Your task to perform on an android device: turn notification dots off Image 0: 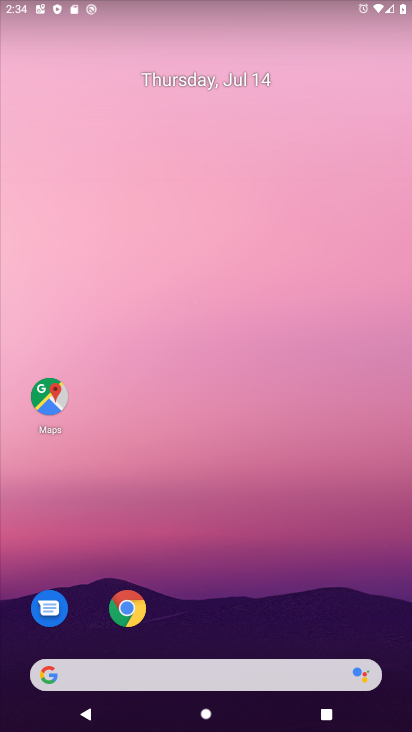
Step 0: drag from (242, 676) to (242, 179)
Your task to perform on an android device: turn notification dots off Image 1: 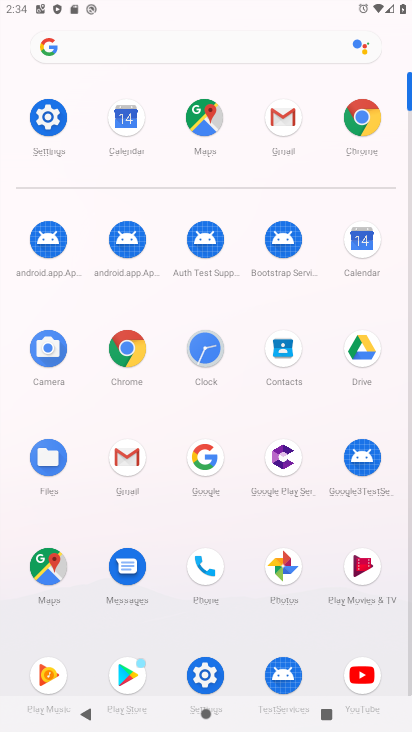
Step 1: click (37, 118)
Your task to perform on an android device: turn notification dots off Image 2: 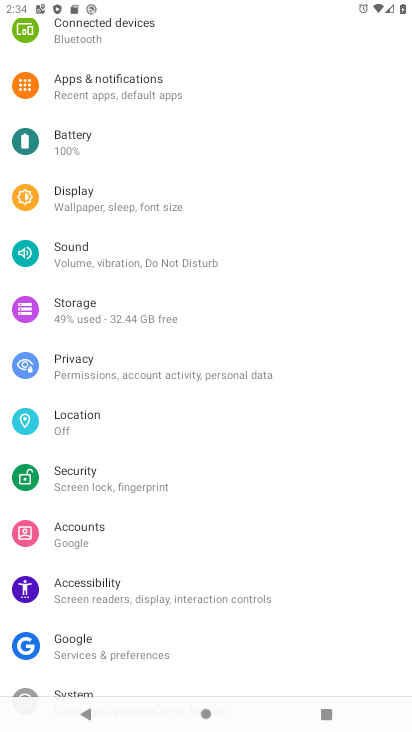
Step 2: click (101, 100)
Your task to perform on an android device: turn notification dots off Image 3: 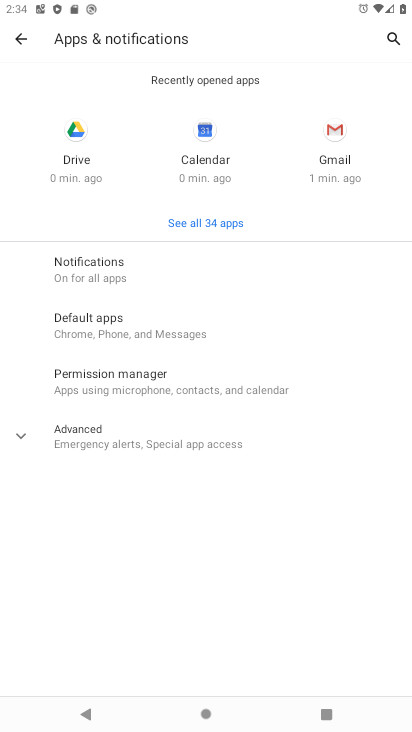
Step 3: click (92, 266)
Your task to perform on an android device: turn notification dots off Image 4: 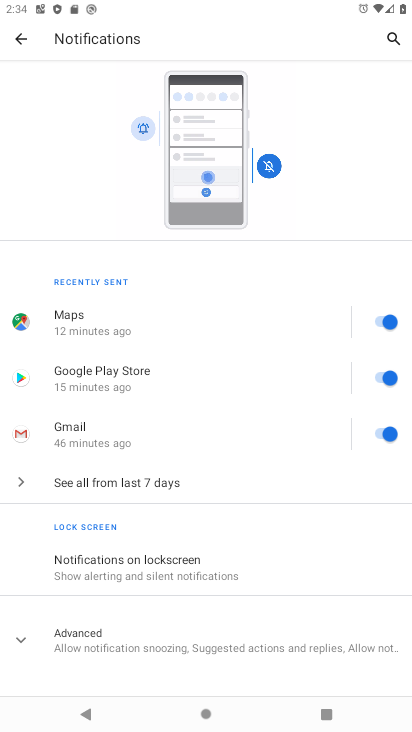
Step 4: drag from (196, 645) to (196, 330)
Your task to perform on an android device: turn notification dots off Image 5: 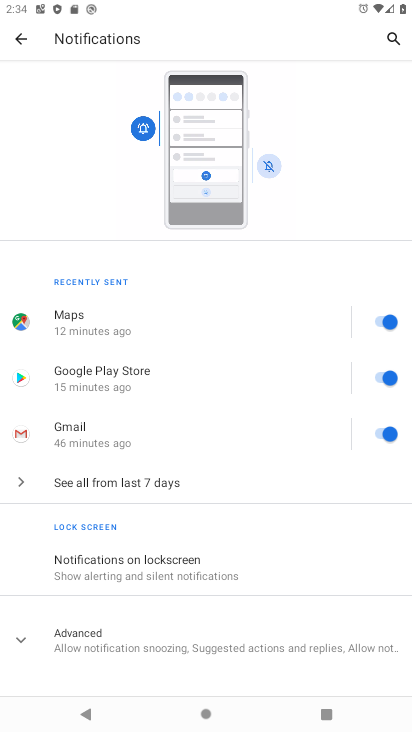
Step 5: click (172, 638)
Your task to perform on an android device: turn notification dots off Image 6: 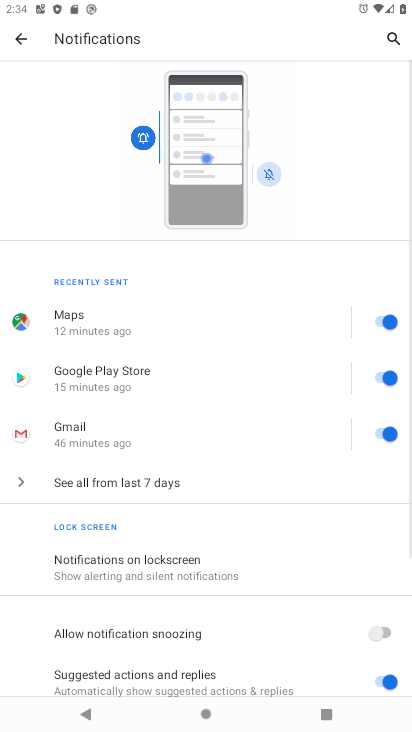
Step 6: drag from (267, 656) to (244, 379)
Your task to perform on an android device: turn notification dots off Image 7: 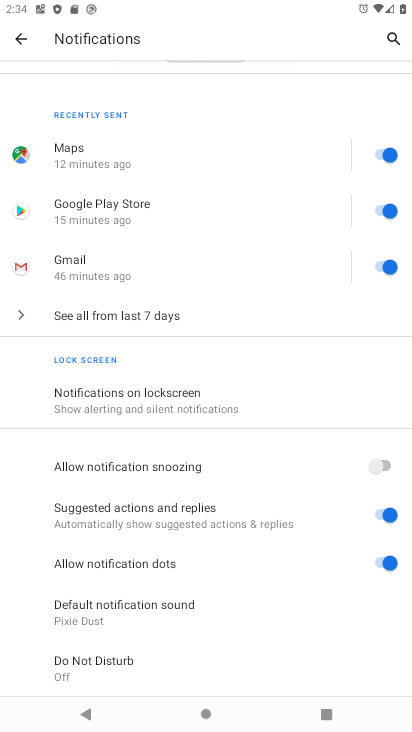
Step 7: click (386, 558)
Your task to perform on an android device: turn notification dots off Image 8: 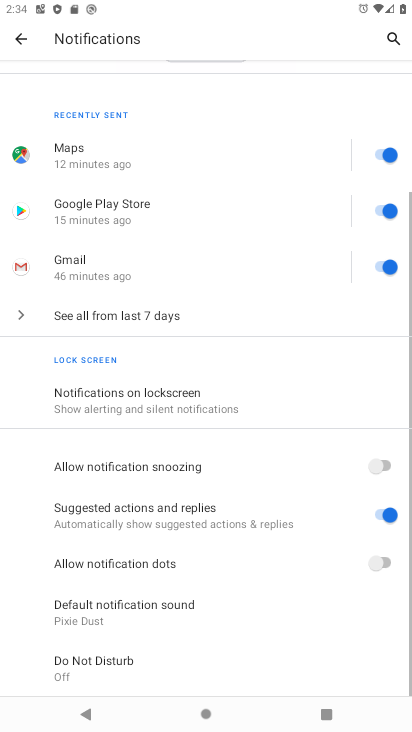
Step 8: task complete